Your task to perform on an android device: Open Youtube and go to the subscriptions tab Image 0: 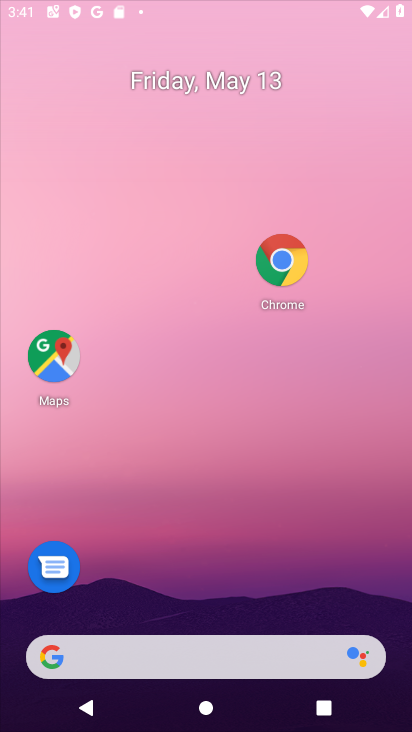
Step 0: drag from (238, 477) to (186, 117)
Your task to perform on an android device: Open Youtube and go to the subscriptions tab Image 1: 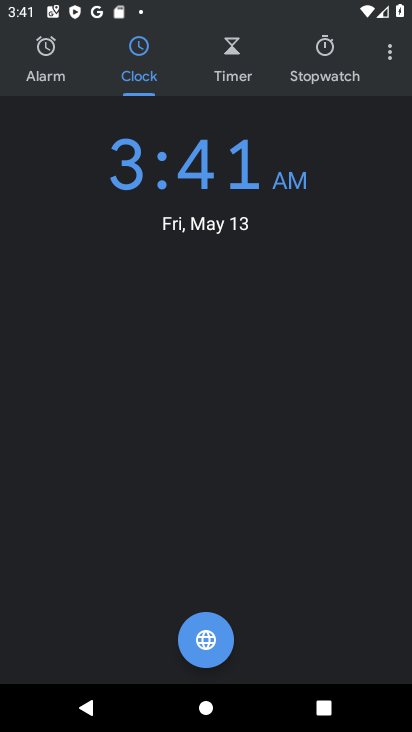
Step 1: press home button
Your task to perform on an android device: Open Youtube and go to the subscriptions tab Image 2: 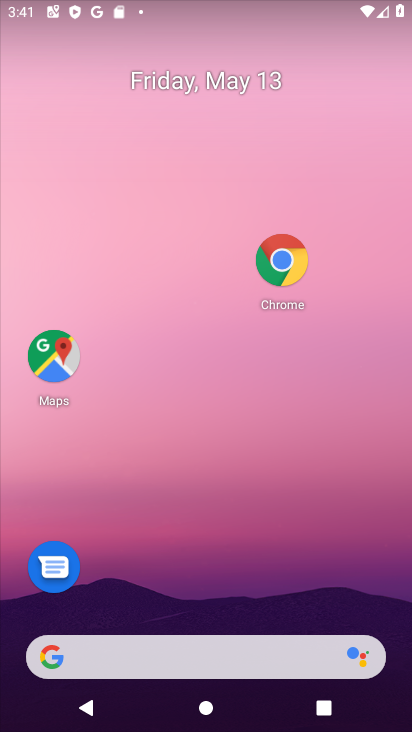
Step 2: drag from (265, 564) to (175, 63)
Your task to perform on an android device: Open Youtube and go to the subscriptions tab Image 3: 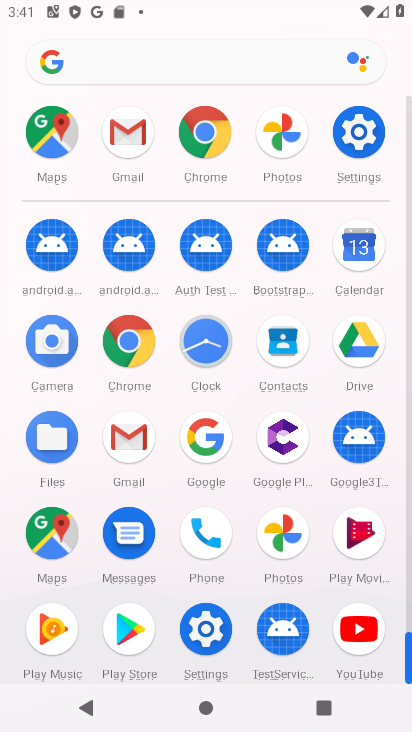
Step 3: click (362, 627)
Your task to perform on an android device: Open Youtube and go to the subscriptions tab Image 4: 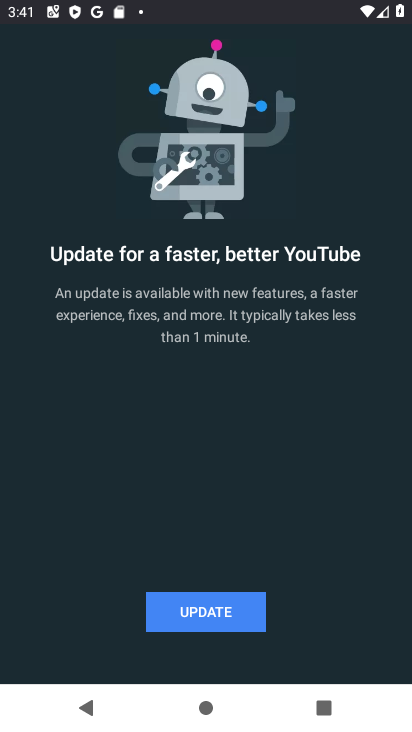
Step 4: click (182, 620)
Your task to perform on an android device: Open Youtube and go to the subscriptions tab Image 5: 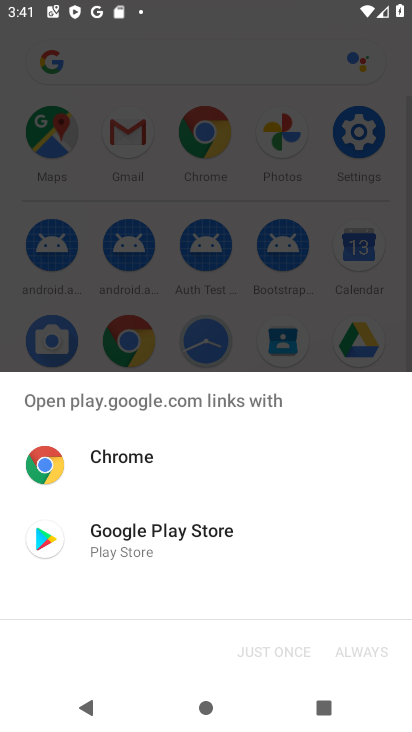
Step 5: click (167, 517)
Your task to perform on an android device: Open Youtube and go to the subscriptions tab Image 6: 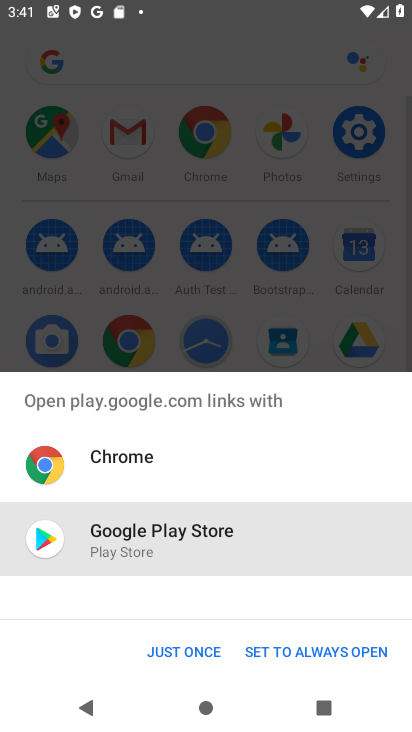
Step 6: click (129, 523)
Your task to perform on an android device: Open Youtube and go to the subscriptions tab Image 7: 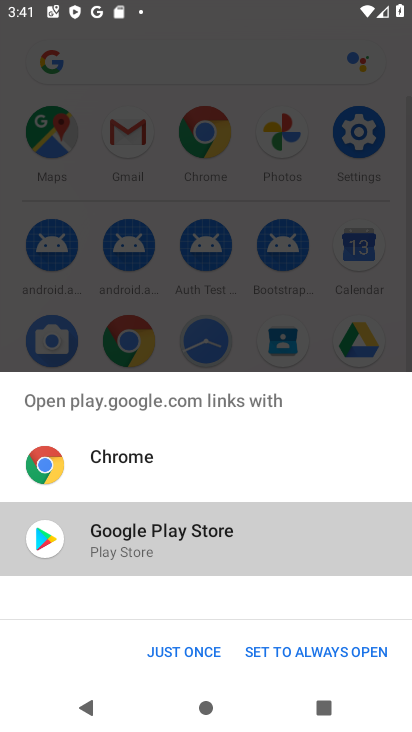
Step 7: click (128, 526)
Your task to perform on an android device: Open Youtube and go to the subscriptions tab Image 8: 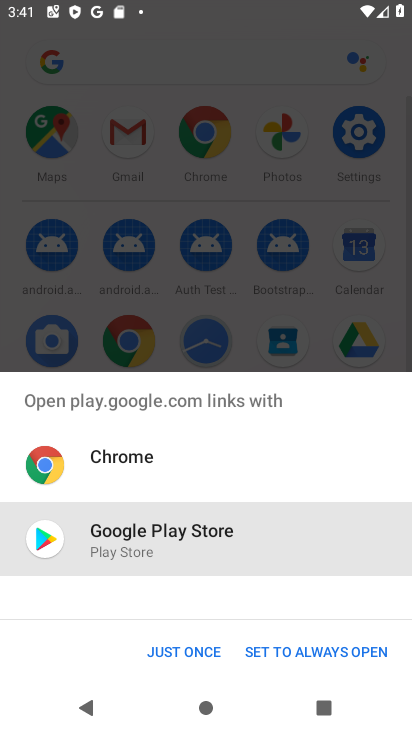
Step 8: click (135, 536)
Your task to perform on an android device: Open Youtube and go to the subscriptions tab Image 9: 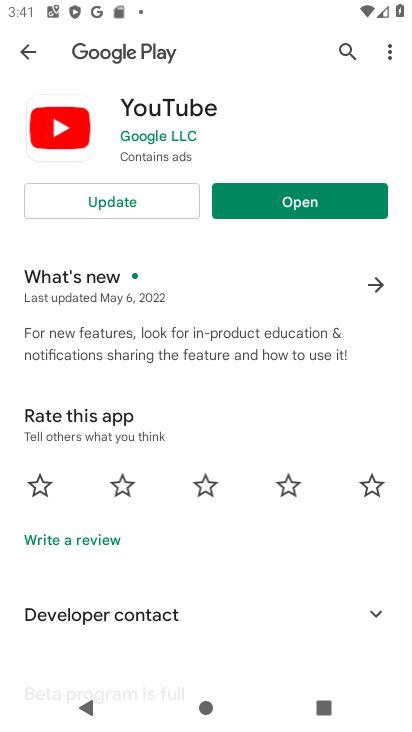
Step 9: click (92, 197)
Your task to perform on an android device: Open Youtube and go to the subscriptions tab Image 10: 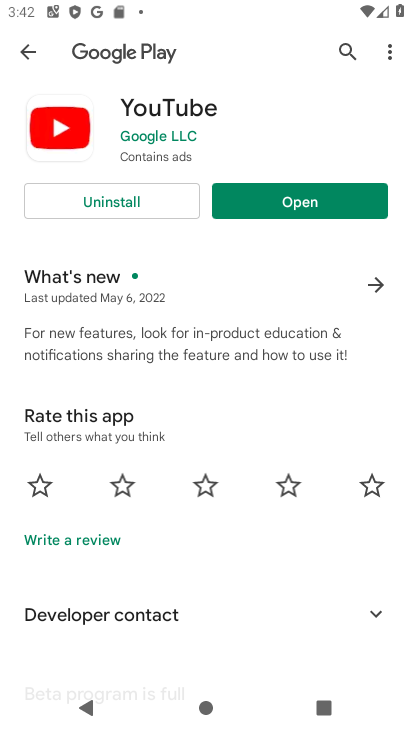
Step 10: click (294, 204)
Your task to perform on an android device: Open Youtube and go to the subscriptions tab Image 11: 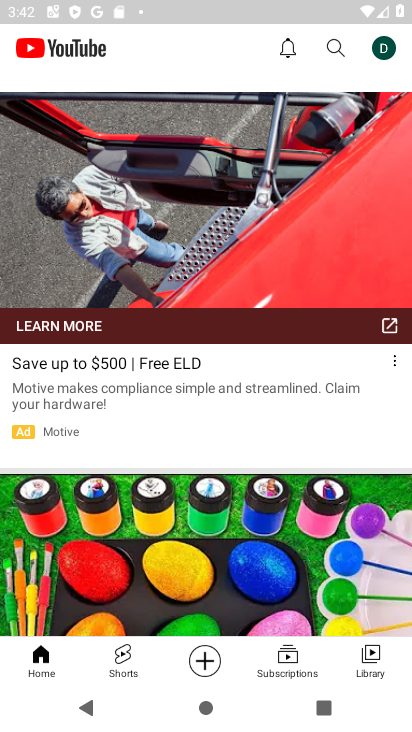
Step 11: click (295, 650)
Your task to perform on an android device: Open Youtube and go to the subscriptions tab Image 12: 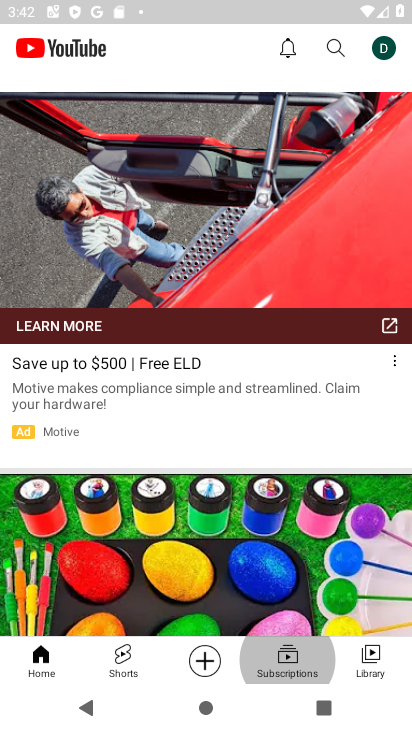
Step 12: click (296, 659)
Your task to perform on an android device: Open Youtube and go to the subscriptions tab Image 13: 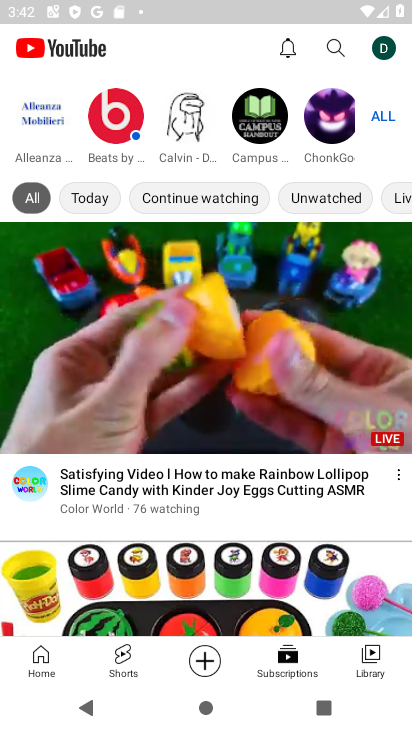
Step 13: task complete